Your task to perform on an android device: change the clock display to show seconds Image 0: 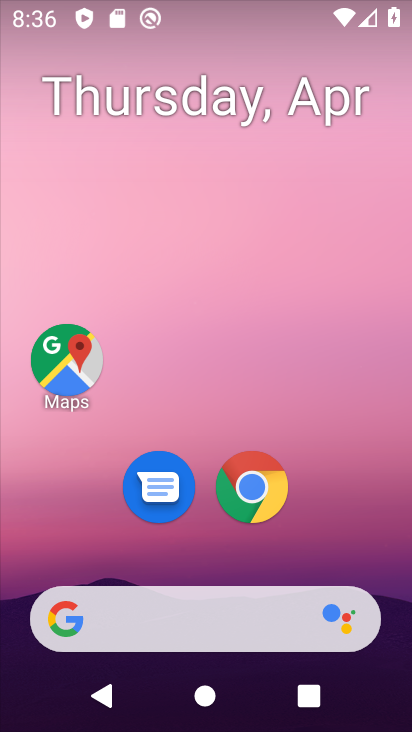
Step 0: drag from (196, 504) to (165, 129)
Your task to perform on an android device: change the clock display to show seconds Image 1: 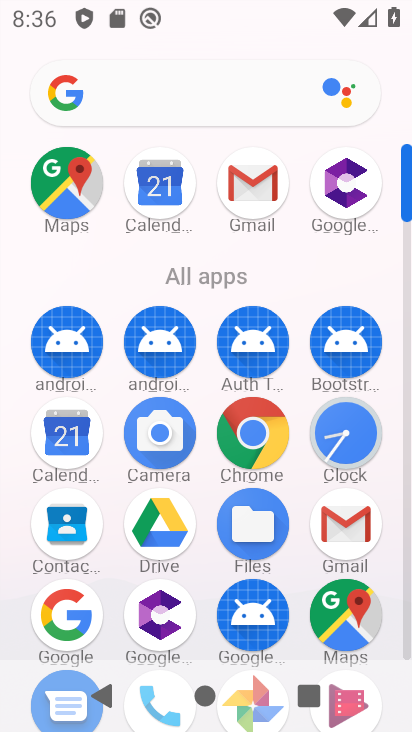
Step 1: click (349, 432)
Your task to perform on an android device: change the clock display to show seconds Image 2: 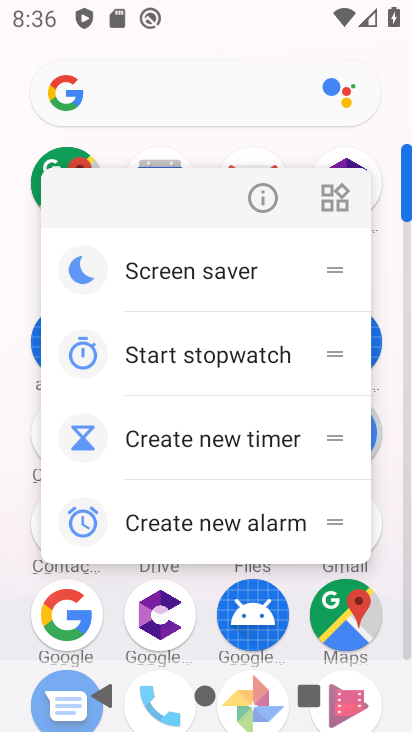
Step 2: click (393, 330)
Your task to perform on an android device: change the clock display to show seconds Image 3: 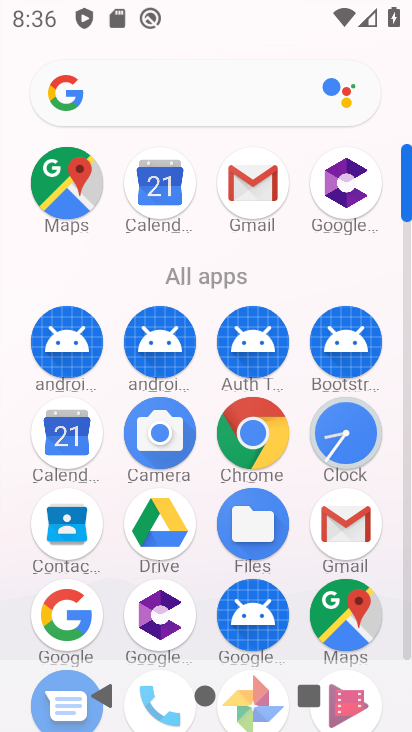
Step 3: click (330, 440)
Your task to perform on an android device: change the clock display to show seconds Image 4: 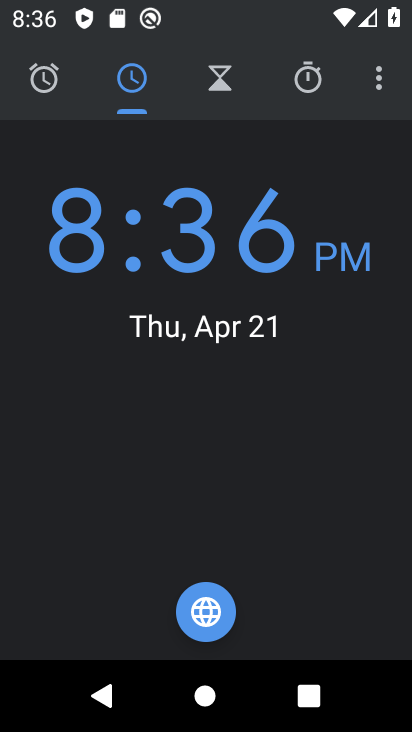
Step 4: click (376, 83)
Your task to perform on an android device: change the clock display to show seconds Image 5: 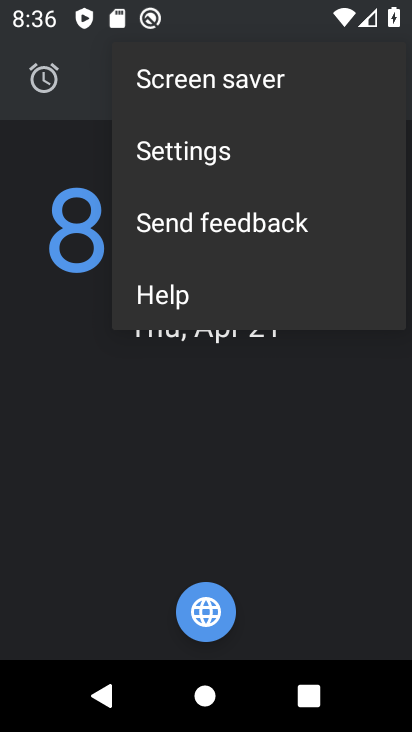
Step 5: click (234, 170)
Your task to perform on an android device: change the clock display to show seconds Image 6: 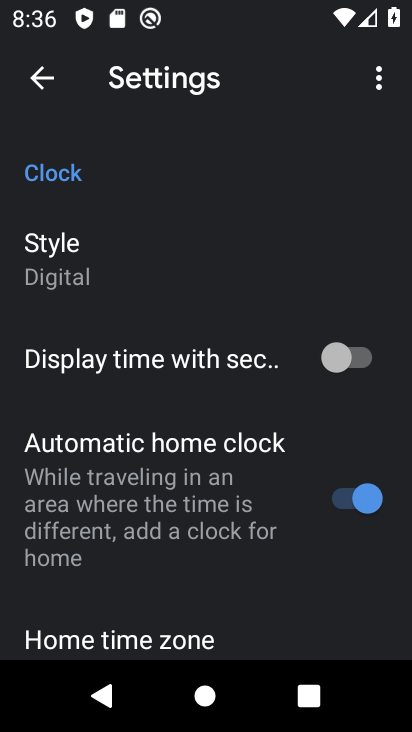
Step 6: click (354, 349)
Your task to perform on an android device: change the clock display to show seconds Image 7: 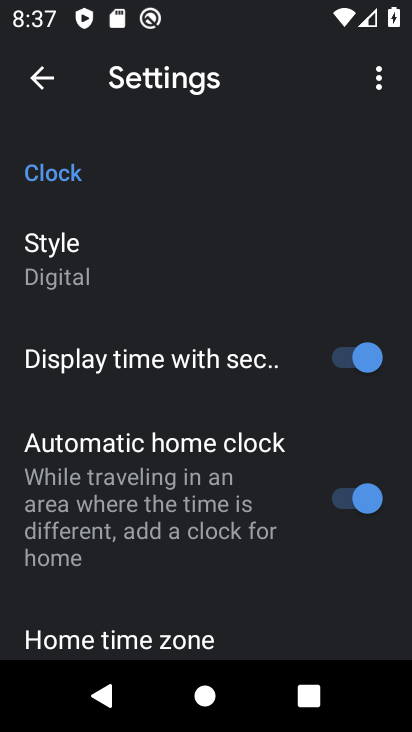
Step 7: task complete